Your task to perform on an android device: Open my contact list Image 0: 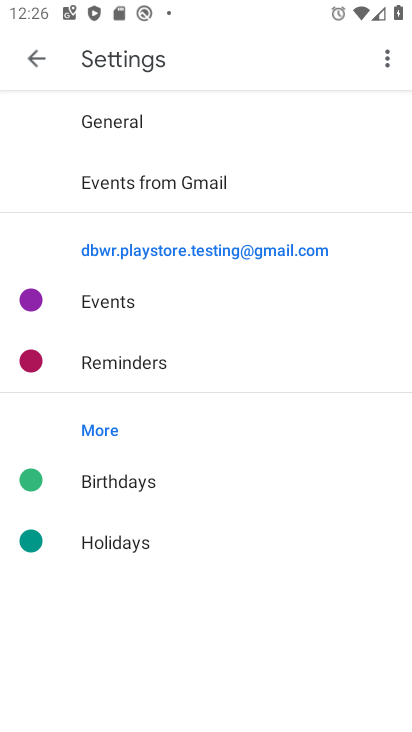
Step 0: press home button
Your task to perform on an android device: Open my contact list Image 1: 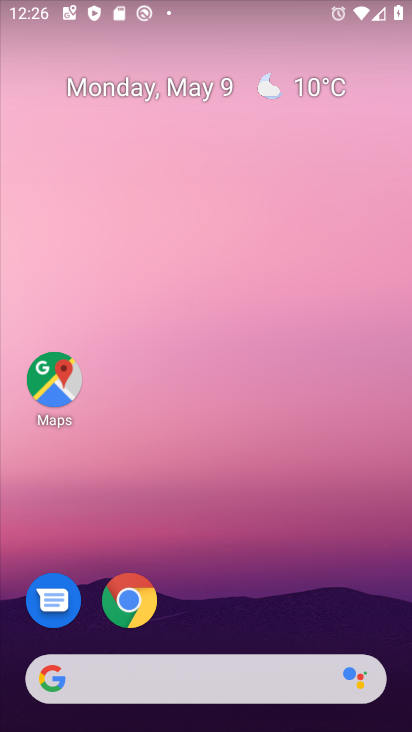
Step 1: drag from (212, 589) to (222, 353)
Your task to perform on an android device: Open my contact list Image 2: 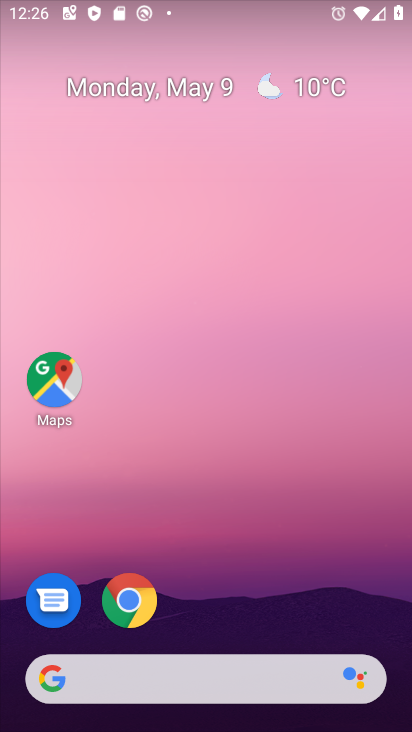
Step 2: drag from (188, 522) to (263, 206)
Your task to perform on an android device: Open my contact list Image 3: 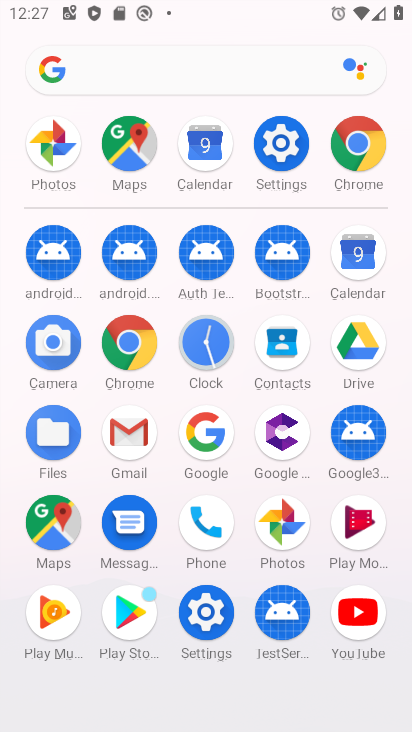
Step 3: click (283, 342)
Your task to perform on an android device: Open my contact list Image 4: 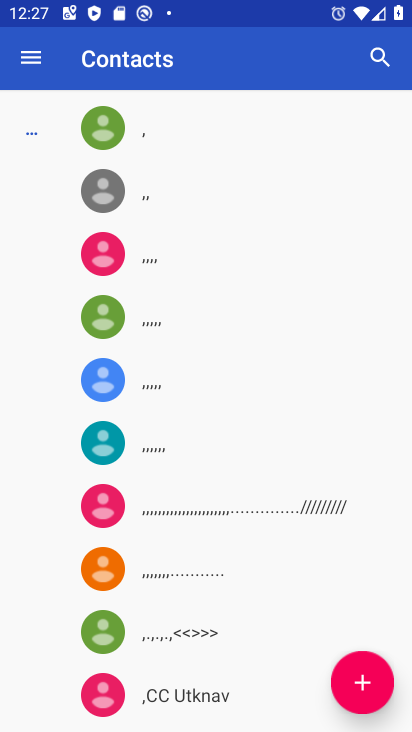
Step 4: task complete